Your task to perform on an android device: Open location settings Image 0: 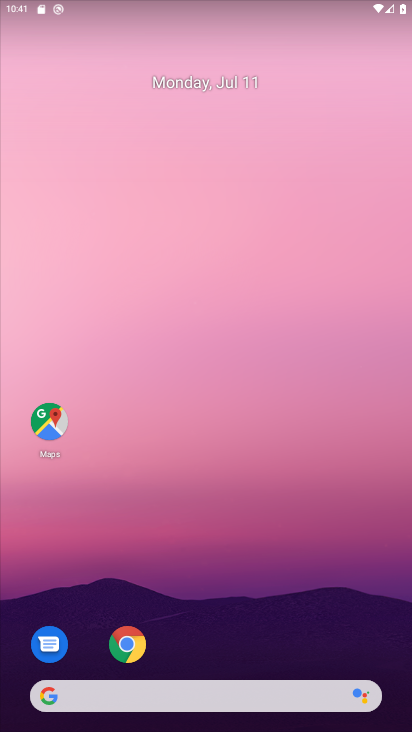
Step 0: drag from (270, 619) to (243, 287)
Your task to perform on an android device: Open location settings Image 1: 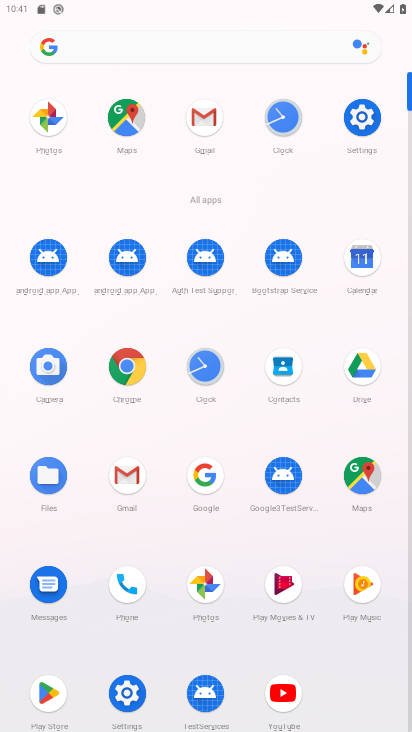
Step 1: click (357, 119)
Your task to perform on an android device: Open location settings Image 2: 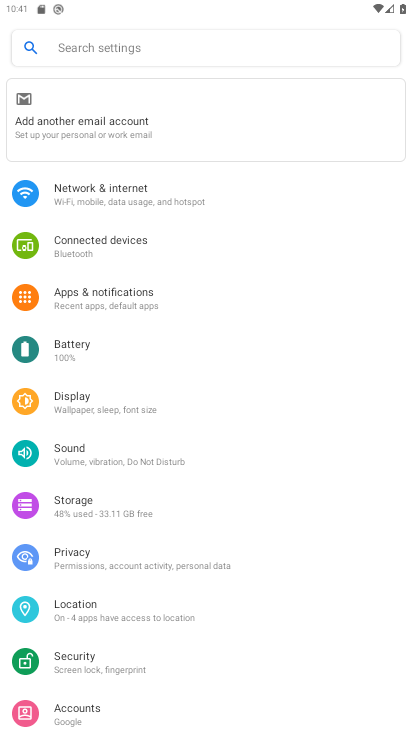
Step 2: click (173, 607)
Your task to perform on an android device: Open location settings Image 3: 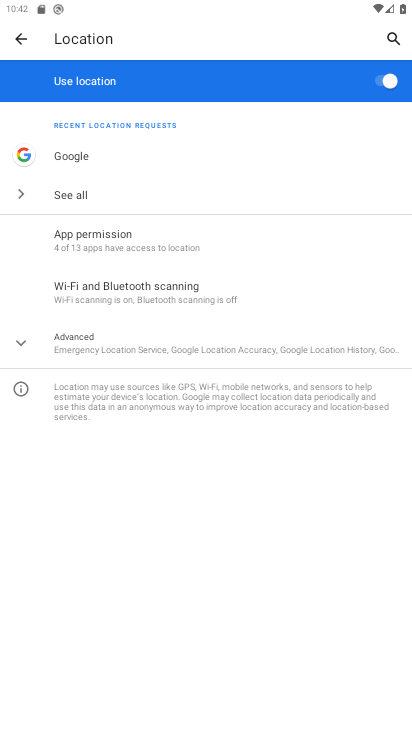
Step 3: task complete